Your task to perform on an android device: turn off smart reply in the gmail app Image 0: 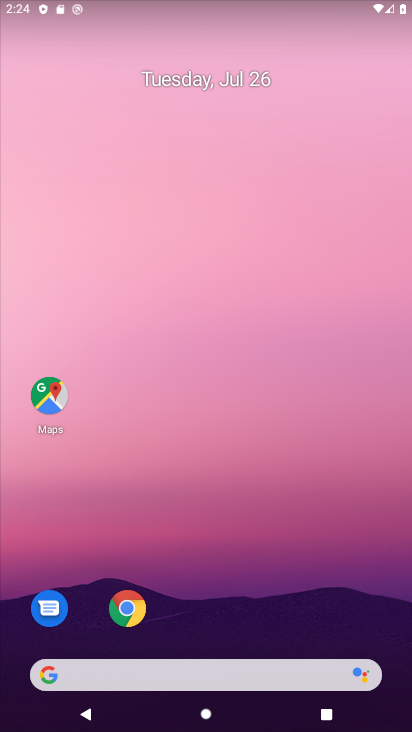
Step 0: drag from (182, 516) to (177, 404)
Your task to perform on an android device: turn off smart reply in the gmail app Image 1: 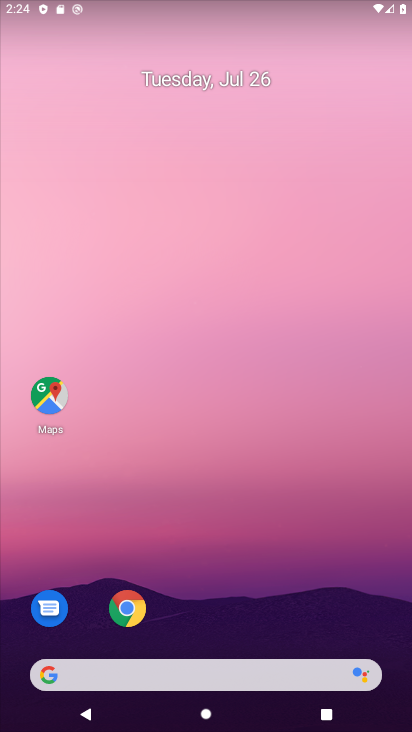
Step 1: drag from (151, 656) to (89, 328)
Your task to perform on an android device: turn off smart reply in the gmail app Image 2: 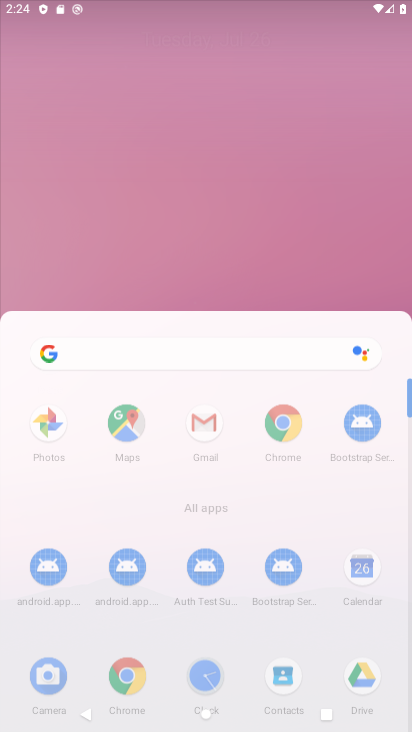
Step 2: drag from (237, 650) to (170, 302)
Your task to perform on an android device: turn off smart reply in the gmail app Image 3: 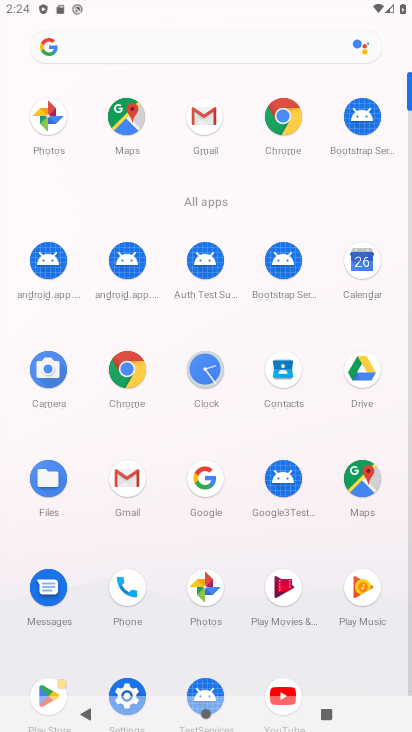
Step 3: drag from (315, 668) to (242, 295)
Your task to perform on an android device: turn off smart reply in the gmail app Image 4: 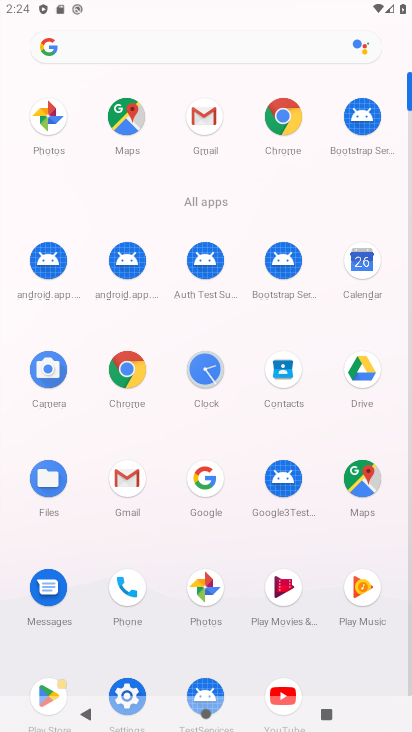
Step 4: click (127, 471)
Your task to perform on an android device: turn off smart reply in the gmail app Image 5: 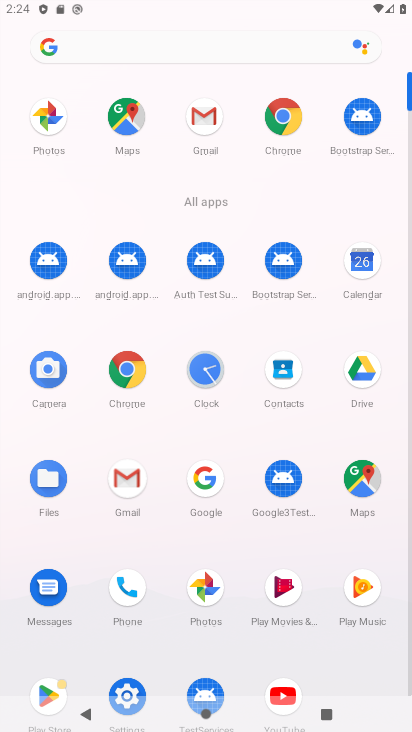
Step 5: click (129, 471)
Your task to perform on an android device: turn off smart reply in the gmail app Image 6: 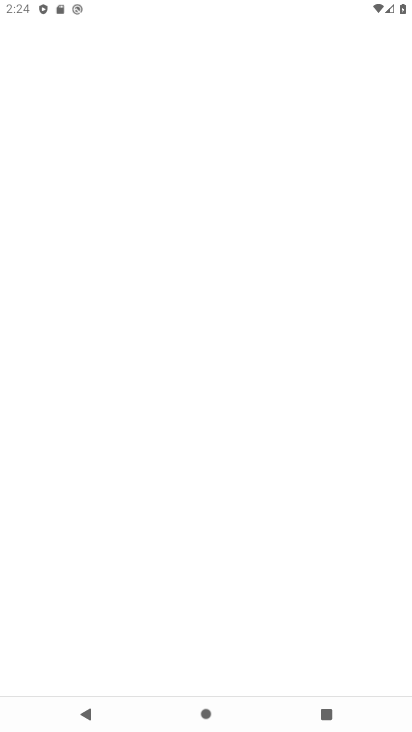
Step 6: click (130, 472)
Your task to perform on an android device: turn off smart reply in the gmail app Image 7: 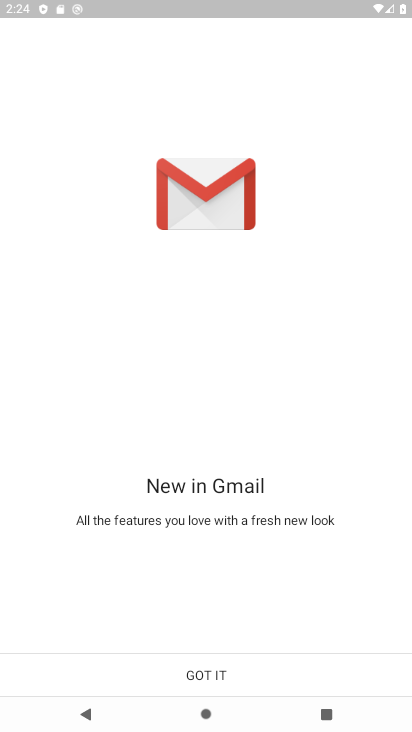
Step 7: click (213, 670)
Your task to perform on an android device: turn off smart reply in the gmail app Image 8: 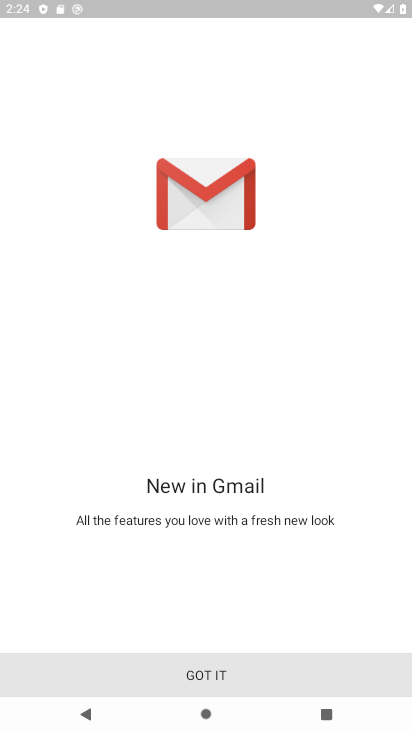
Step 8: click (215, 667)
Your task to perform on an android device: turn off smart reply in the gmail app Image 9: 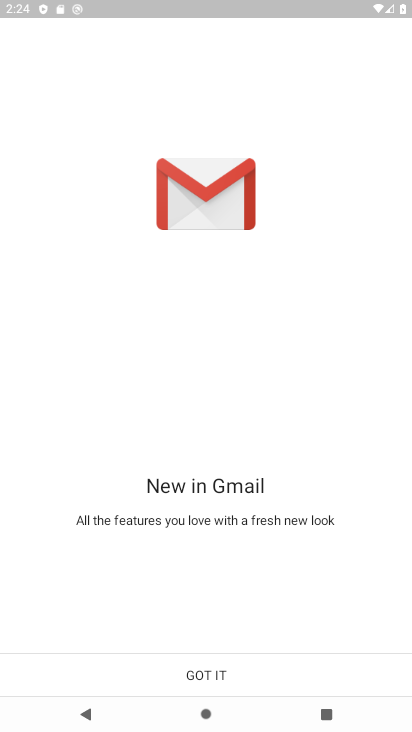
Step 9: click (213, 665)
Your task to perform on an android device: turn off smart reply in the gmail app Image 10: 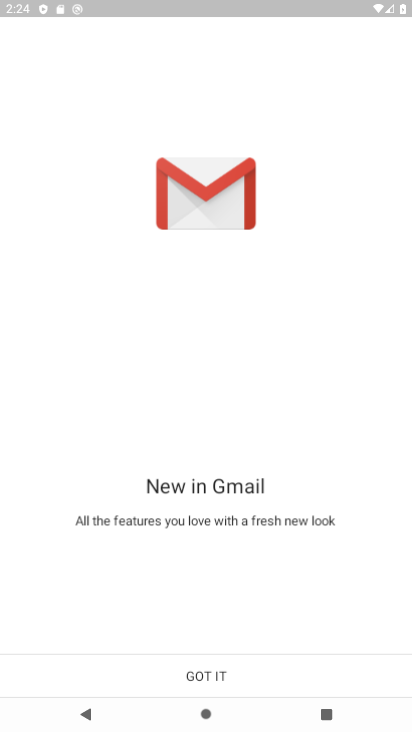
Step 10: click (209, 663)
Your task to perform on an android device: turn off smart reply in the gmail app Image 11: 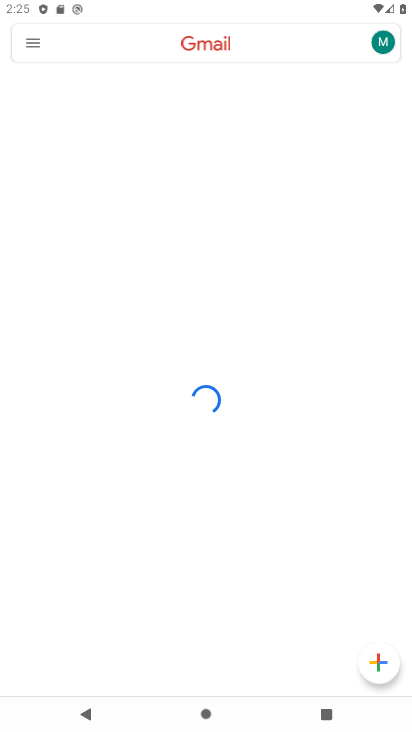
Step 11: click (31, 36)
Your task to perform on an android device: turn off smart reply in the gmail app Image 12: 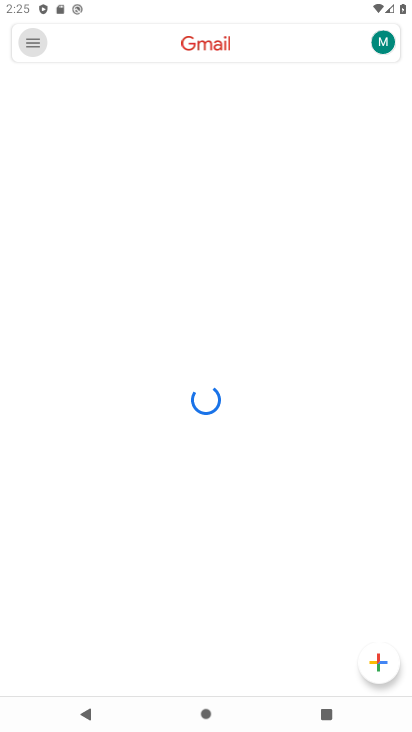
Step 12: click (31, 36)
Your task to perform on an android device: turn off smart reply in the gmail app Image 13: 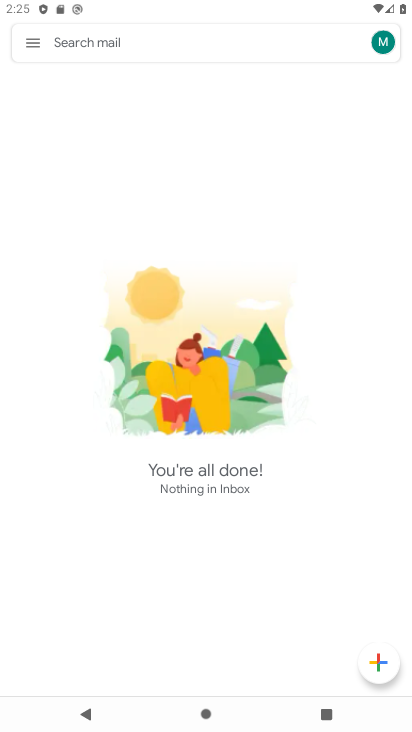
Step 13: click (39, 45)
Your task to perform on an android device: turn off smart reply in the gmail app Image 14: 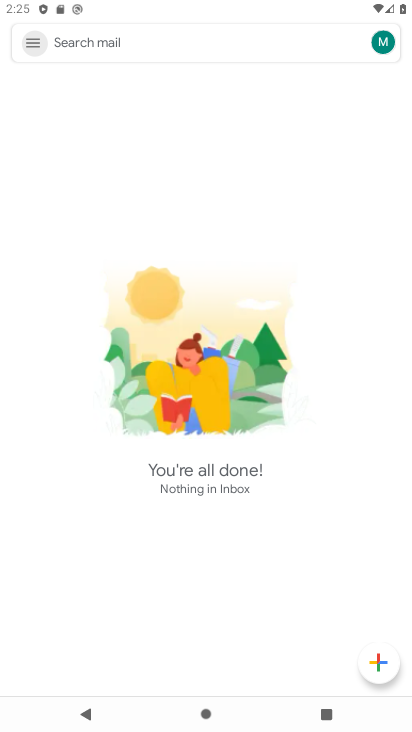
Step 14: click (34, 52)
Your task to perform on an android device: turn off smart reply in the gmail app Image 15: 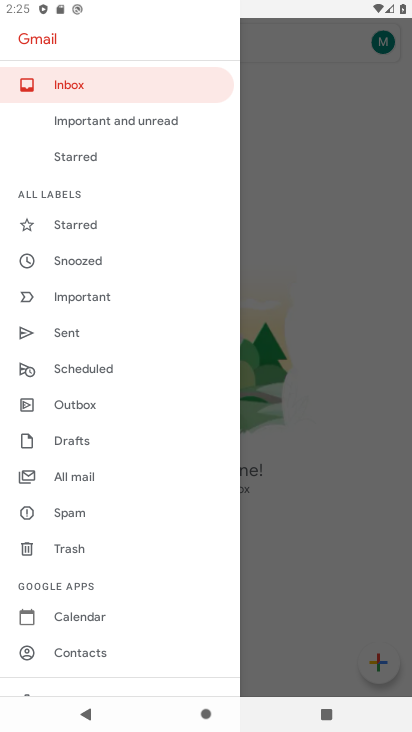
Step 15: drag from (80, 566) to (81, 339)
Your task to perform on an android device: turn off smart reply in the gmail app Image 16: 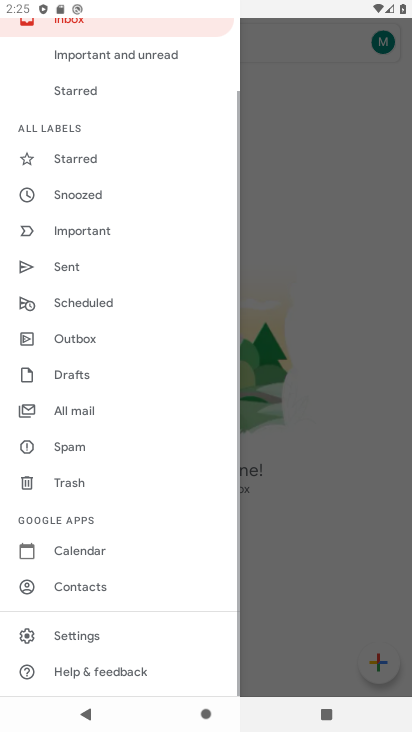
Step 16: drag from (126, 640) to (125, 255)
Your task to perform on an android device: turn off smart reply in the gmail app Image 17: 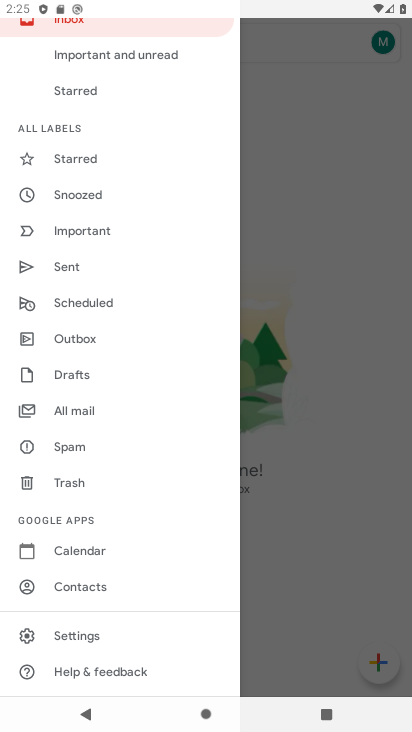
Step 17: click (66, 635)
Your task to perform on an android device: turn off smart reply in the gmail app Image 18: 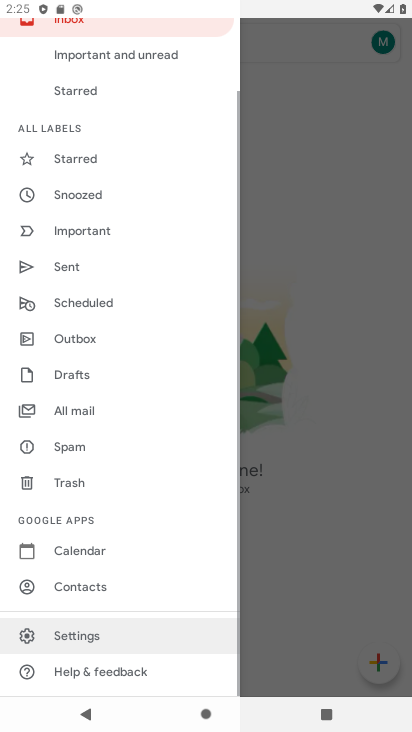
Step 18: click (66, 635)
Your task to perform on an android device: turn off smart reply in the gmail app Image 19: 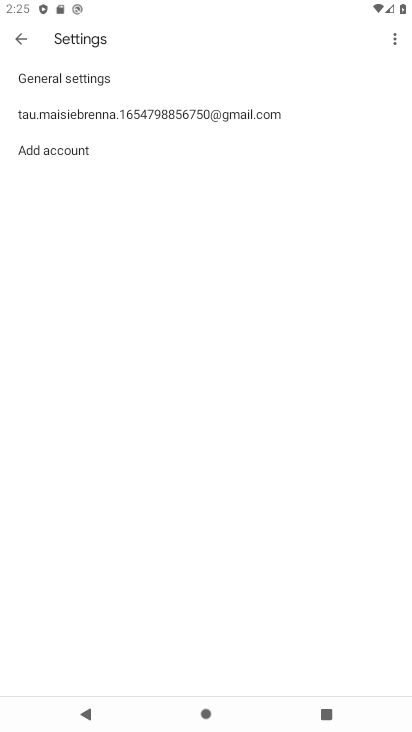
Step 19: click (131, 99)
Your task to perform on an android device: turn off smart reply in the gmail app Image 20: 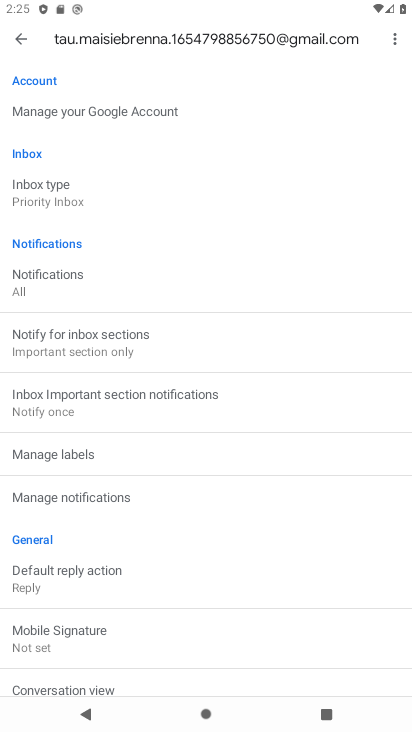
Step 20: drag from (88, 528) to (103, 238)
Your task to perform on an android device: turn off smart reply in the gmail app Image 21: 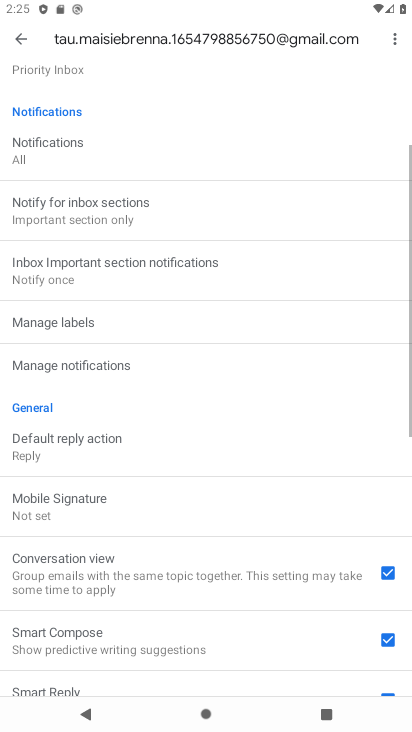
Step 21: drag from (138, 516) to (92, 305)
Your task to perform on an android device: turn off smart reply in the gmail app Image 22: 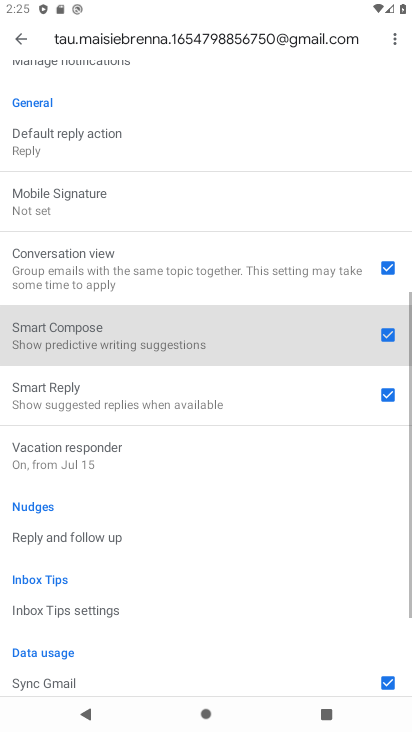
Step 22: drag from (133, 430) to (106, 219)
Your task to perform on an android device: turn off smart reply in the gmail app Image 23: 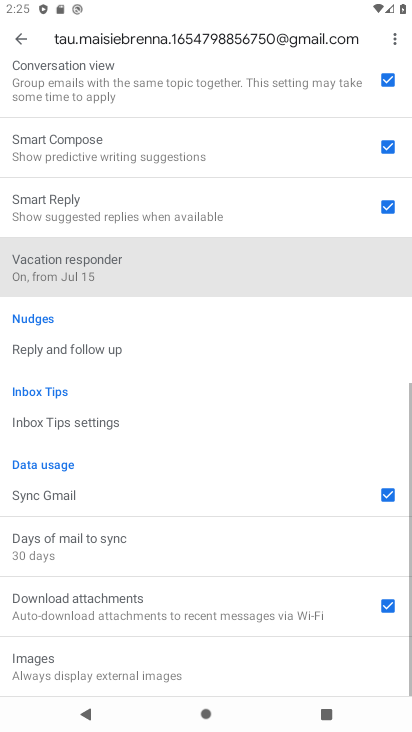
Step 23: drag from (131, 415) to (151, 282)
Your task to perform on an android device: turn off smart reply in the gmail app Image 24: 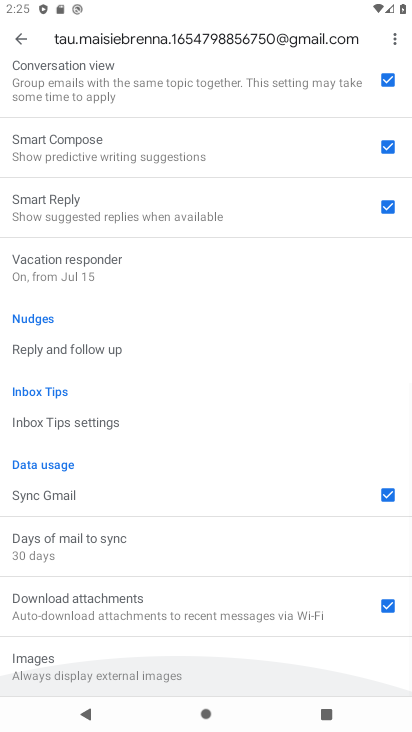
Step 24: drag from (113, 593) to (112, 342)
Your task to perform on an android device: turn off smart reply in the gmail app Image 25: 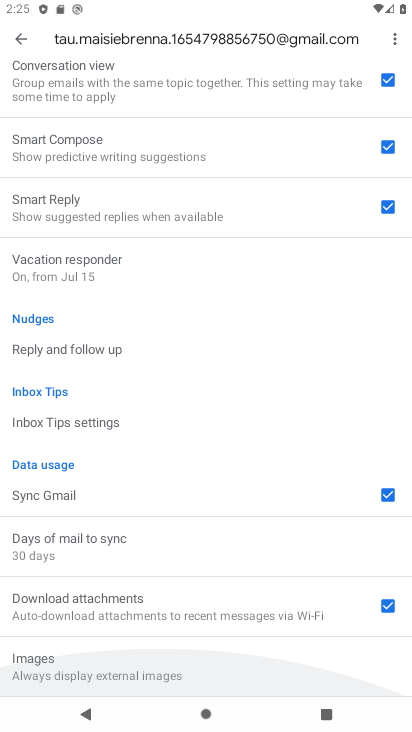
Step 25: drag from (108, 695) to (87, 293)
Your task to perform on an android device: turn off smart reply in the gmail app Image 26: 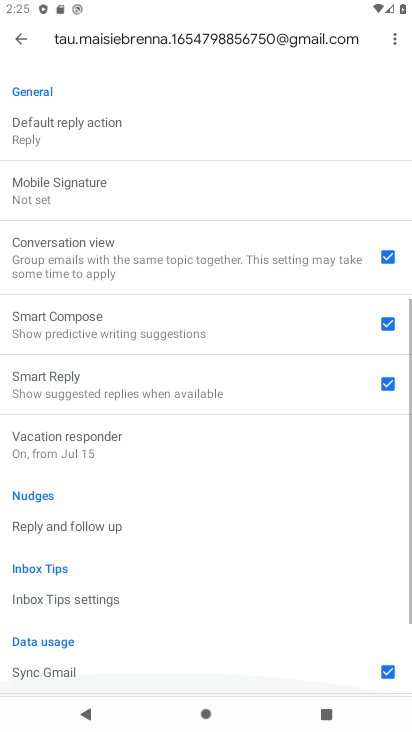
Step 26: drag from (162, 659) to (120, 209)
Your task to perform on an android device: turn off smart reply in the gmail app Image 27: 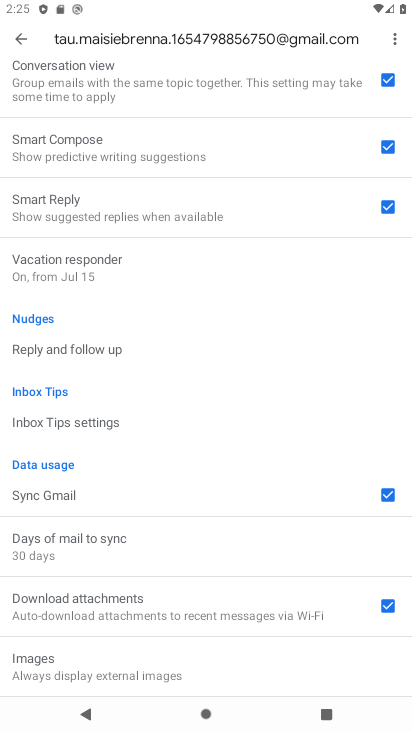
Step 27: click (390, 204)
Your task to perform on an android device: turn off smart reply in the gmail app Image 28: 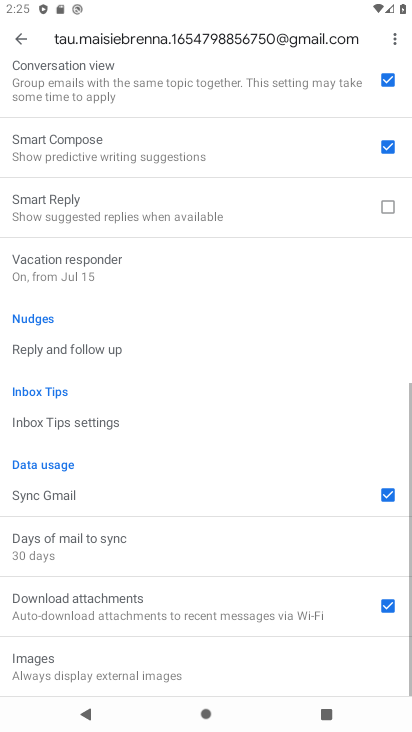
Step 28: task complete